Your task to perform on an android device: Search for sushi restaurants on Maps Image 0: 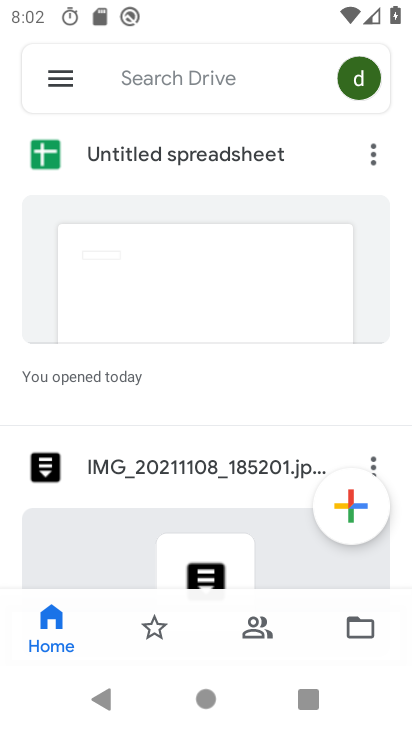
Step 0: press home button
Your task to perform on an android device: Search for sushi restaurants on Maps Image 1: 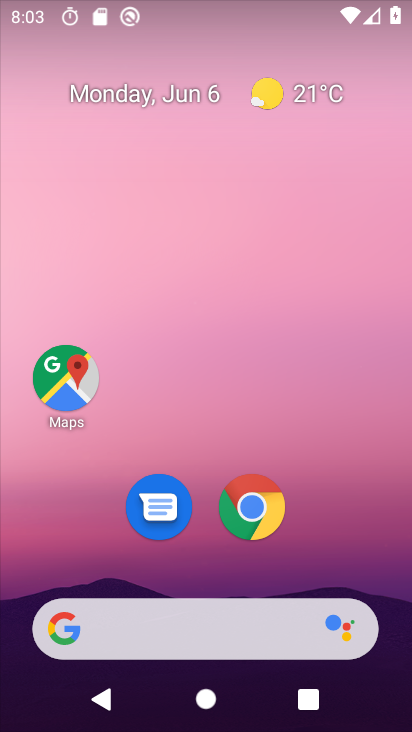
Step 1: drag from (358, 569) to (354, 464)
Your task to perform on an android device: Search for sushi restaurants on Maps Image 2: 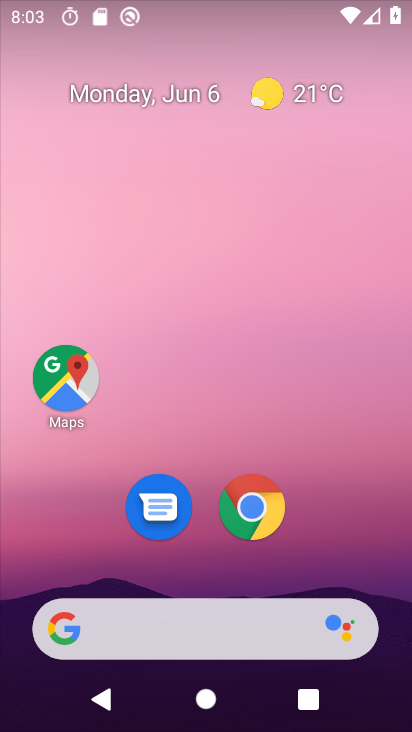
Step 2: click (67, 368)
Your task to perform on an android device: Search for sushi restaurants on Maps Image 3: 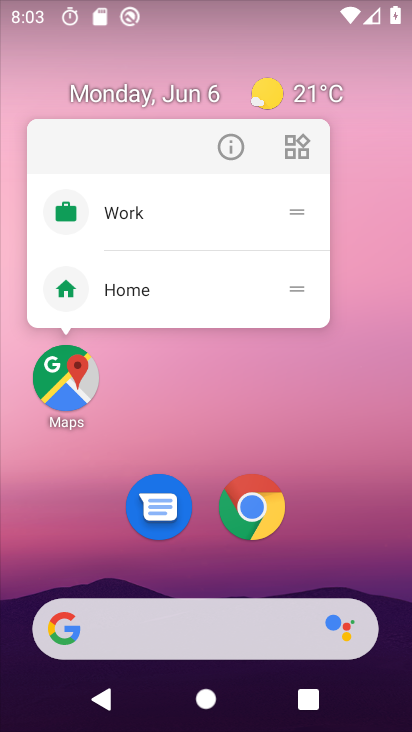
Step 3: click (67, 368)
Your task to perform on an android device: Search for sushi restaurants on Maps Image 4: 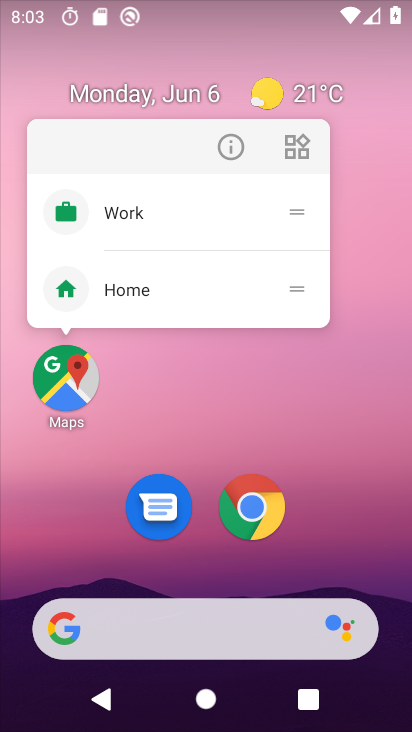
Step 4: click (4, 421)
Your task to perform on an android device: Search for sushi restaurants on Maps Image 5: 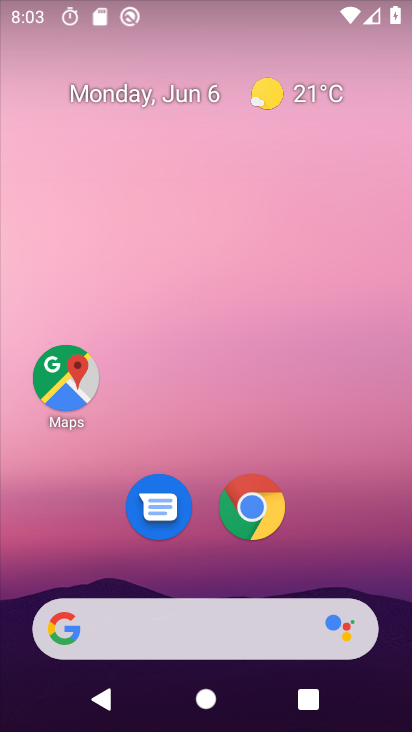
Step 5: click (83, 370)
Your task to perform on an android device: Search for sushi restaurants on Maps Image 6: 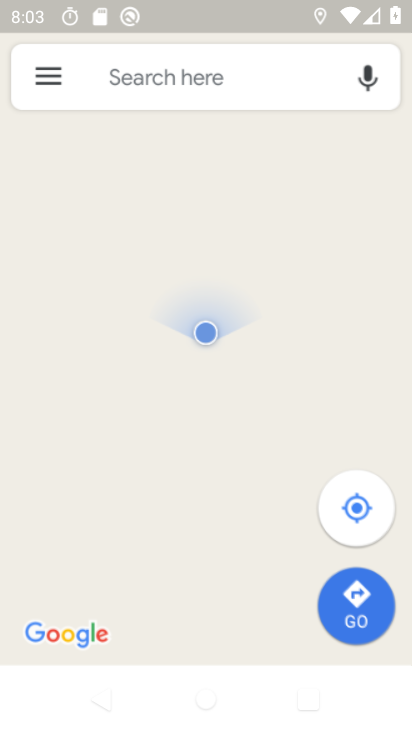
Step 6: click (191, 78)
Your task to perform on an android device: Search for sushi restaurants on Maps Image 7: 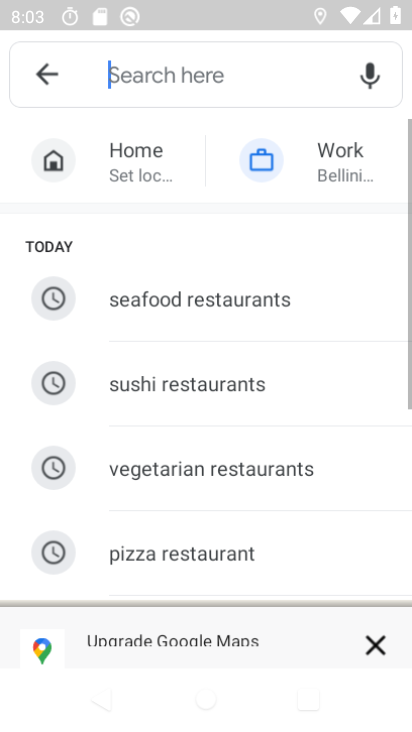
Step 7: type " sushi restaurants"
Your task to perform on an android device: Search for sushi restaurants on Maps Image 8: 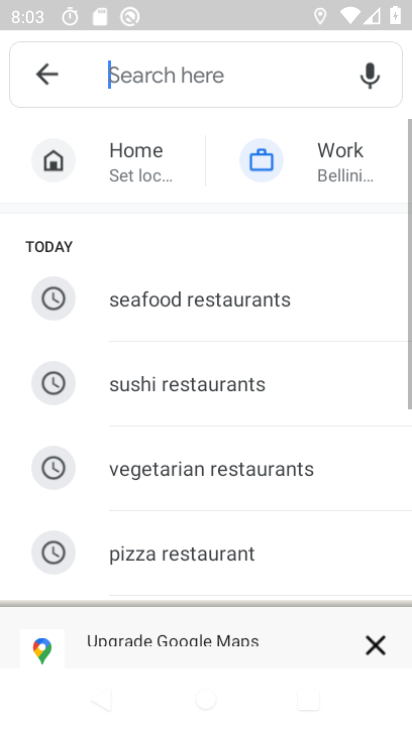
Step 8: click (99, 164)
Your task to perform on an android device: Search for sushi restaurants on Maps Image 9: 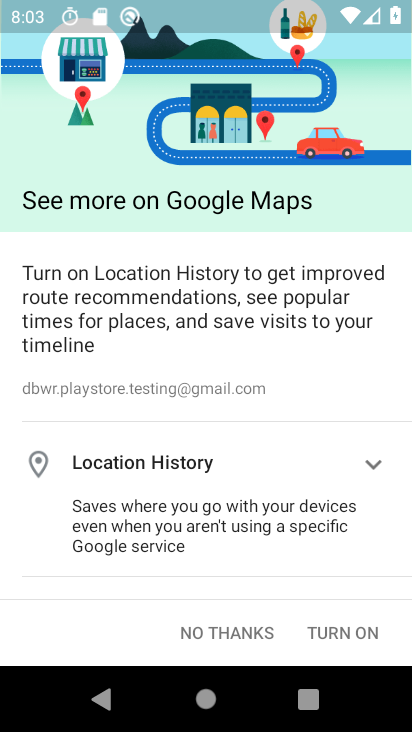
Step 9: click (249, 637)
Your task to perform on an android device: Search for sushi restaurants on Maps Image 10: 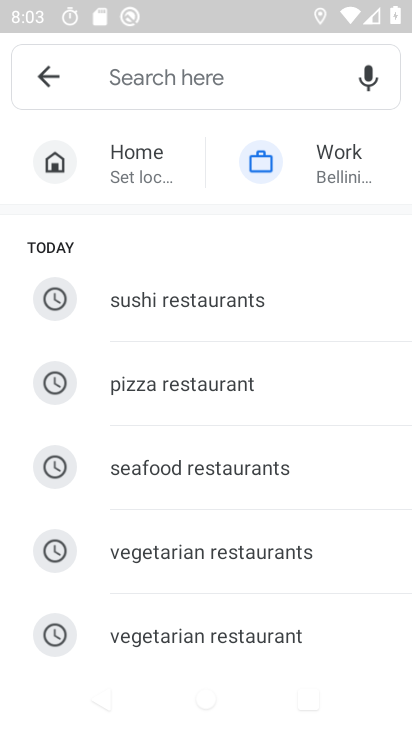
Step 10: click (181, 88)
Your task to perform on an android device: Search for sushi restaurants on Maps Image 11: 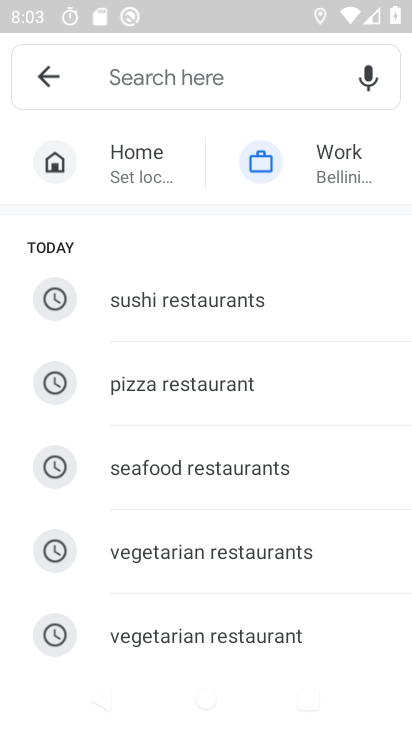
Step 11: click (181, 88)
Your task to perform on an android device: Search for sushi restaurants on Maps Image 12: 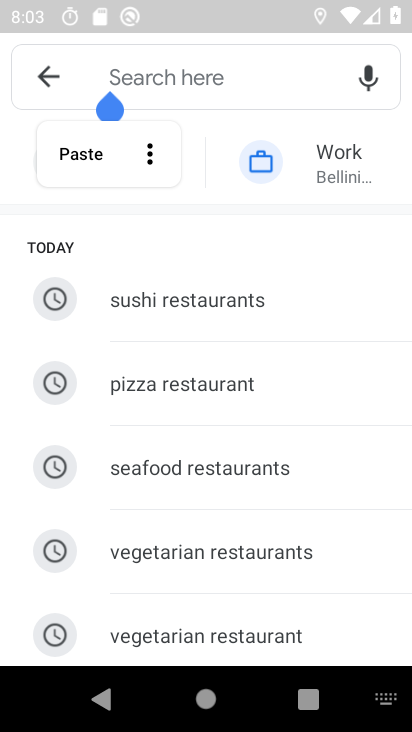
Step 12: type " sushi restaurants"
Your task to perform on an android device: Search for sushi restaurants on Maps Image 13: 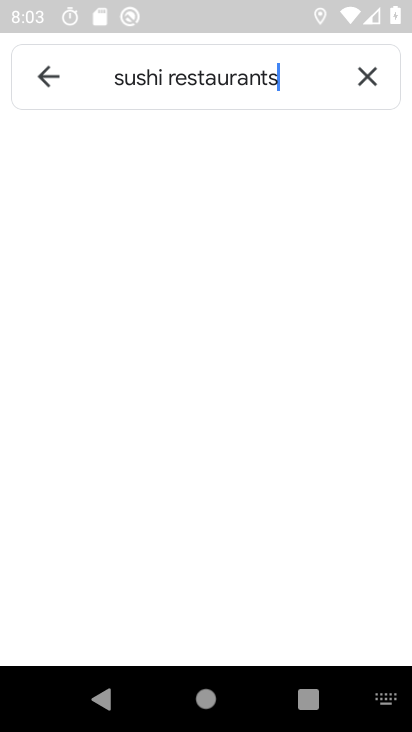
Step 13: type ""
Your task to perform on an android device: Search for sushi restaurants on Maps Image 14: 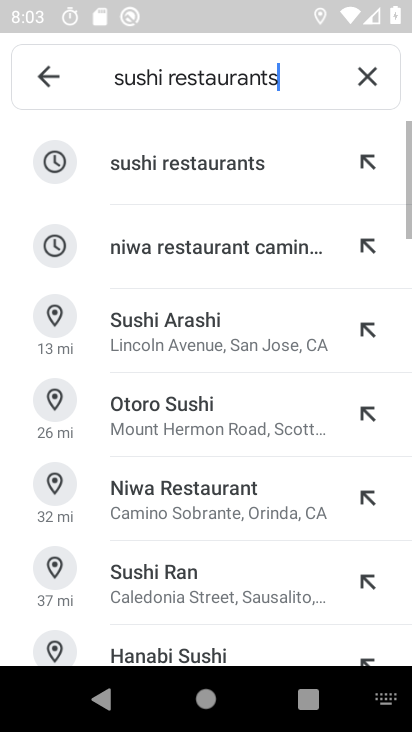
Step 14: click (151, 151)
Your task to perform on an android device: Search for sushi restaurants on Maps Image 15: 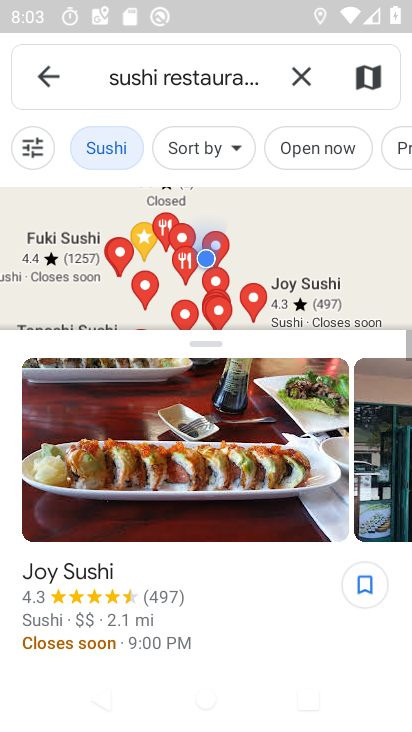
Step 15: task complete